Your task to perform on an android device: Open network settings Image 0: 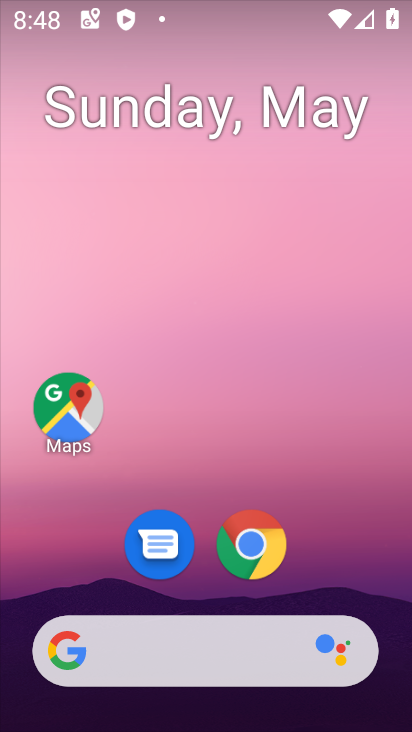
Step 0: drag from (352, 533) to (262, 12)
Your task to perform on an android device: Open network settings Image 1: 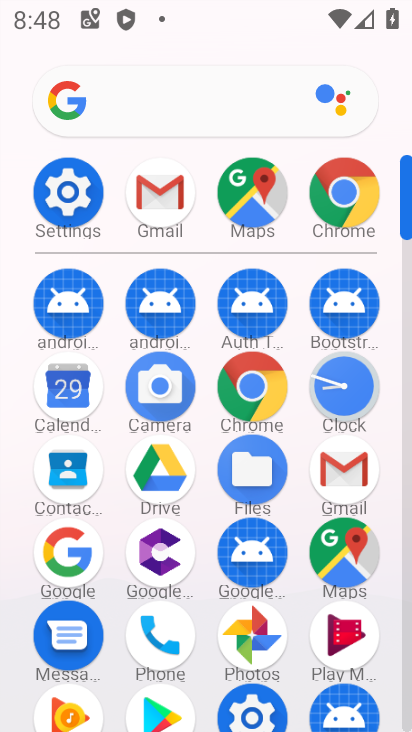
Step 1: click (80, 223)
Your task to perform on an android device: Open network settings Image 2: 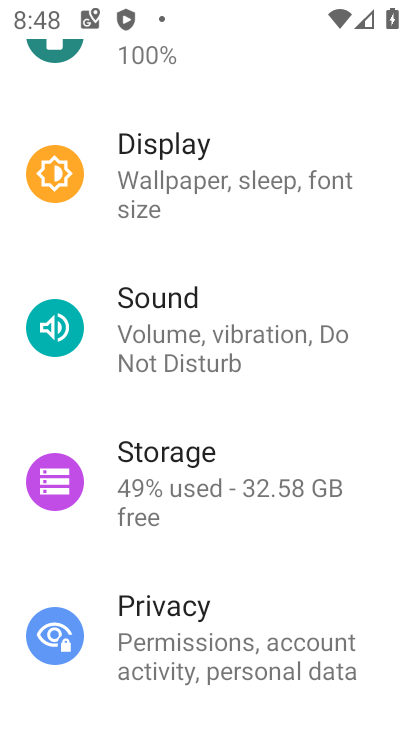
Step 2: drag from (190, 145) to (263, 473)
Your task to perform on an android device: Open network settings Image 3: 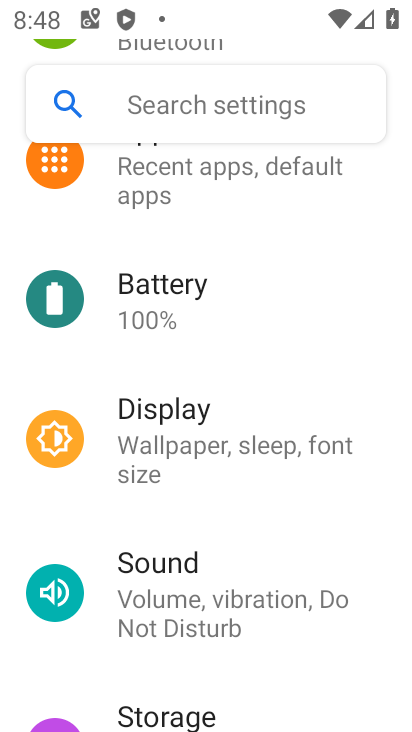
Step 3: drag from (231, 140) to (286, 628)
Your task to perform on an android device: Open network settings Image 4: 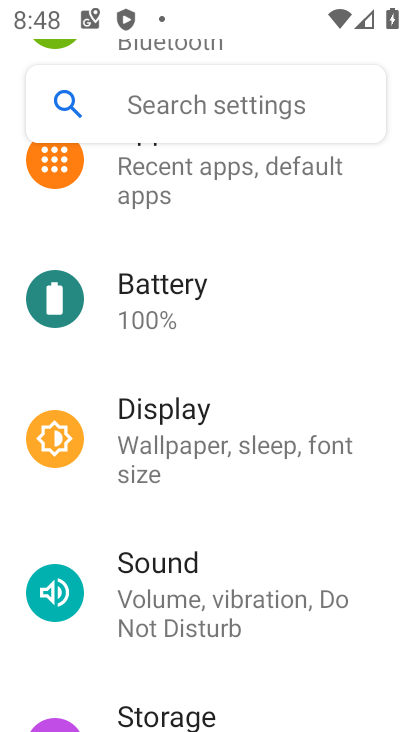
Step 4: drag from (218, 222) to (216, 587)
Your task to perform on an android device: Open network settings Image 5: 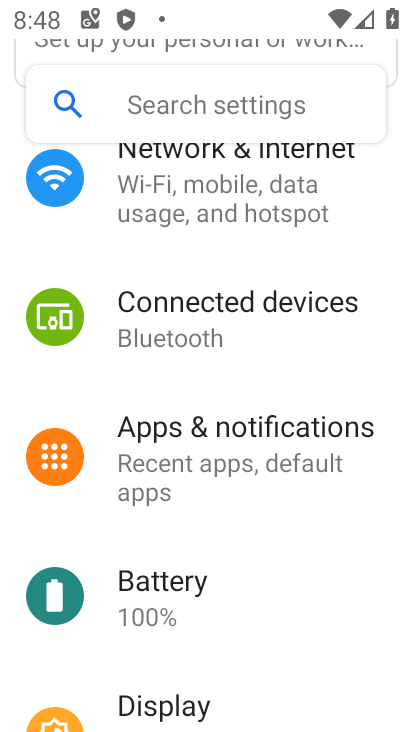
Step 5: drag from (185, 193) to (197, 601)
Your task to perform on an android device: Open network settings Image 6: 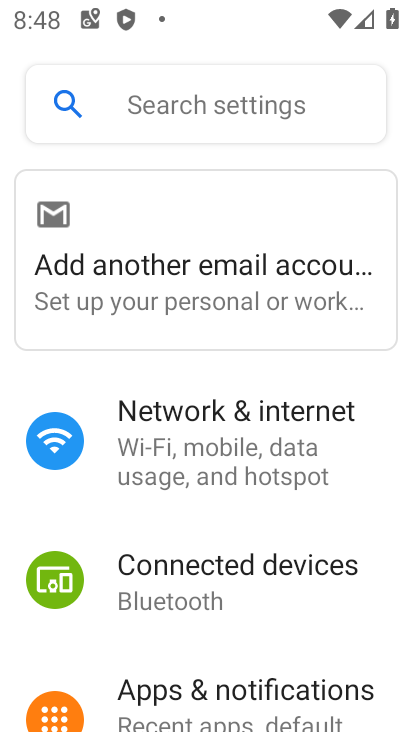
Step 6: click (144, 451)
Your task to perform on an android device: Open network settings Image 7: 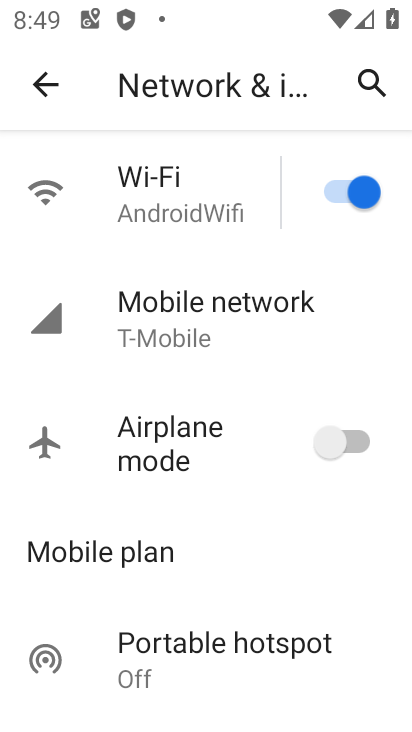
Step 7: task complete